Your task to perform on an android device: Open Wikipedia Image 0: 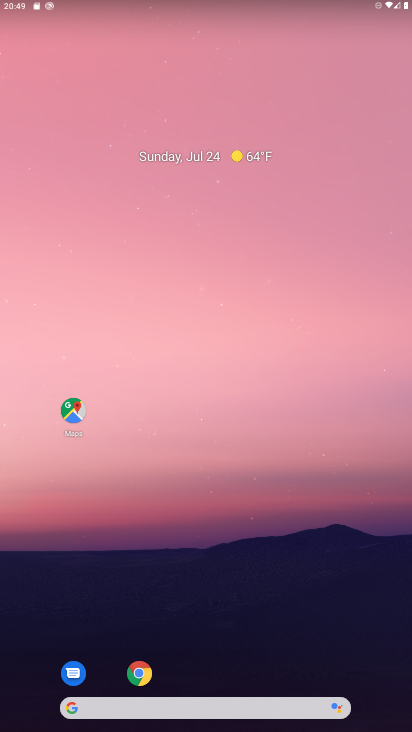
Step 0: click (143, 671)
Your task to perform on an android device: Open Wikipedia Image 1: 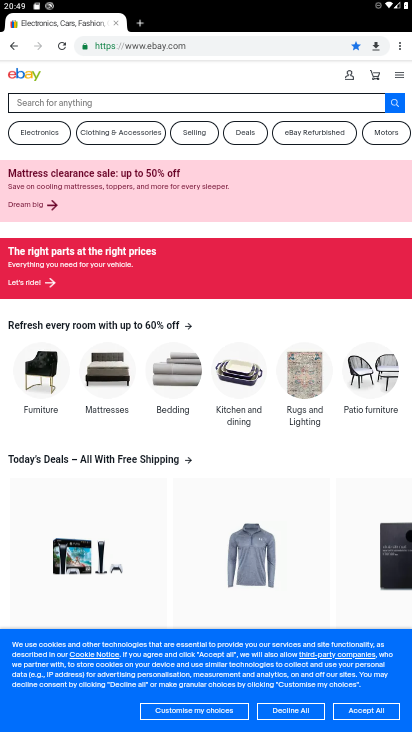
Step 1: click (140, 23)
Your task to perform on an android device: Open Wikipedia Image 2: 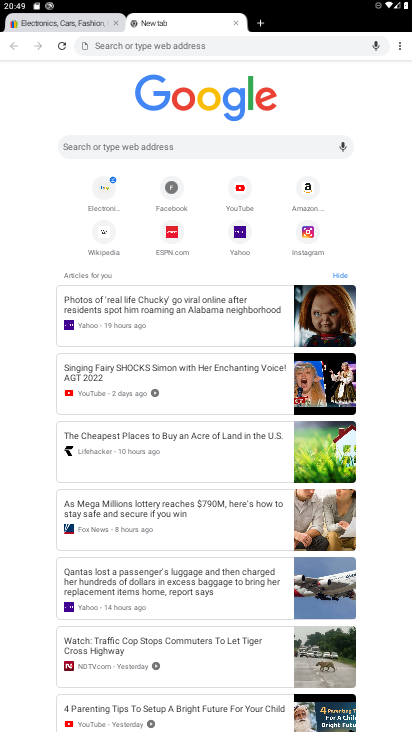
Step 2: click (103, 232)
Your task to perform on an android device: Open Wikipedia Image 3: 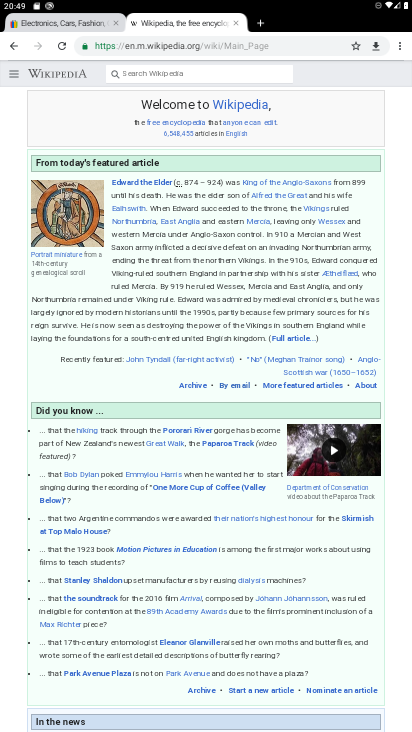
Step 3: task complete